Your task to perform on an android device: Go to network settings Image 0: 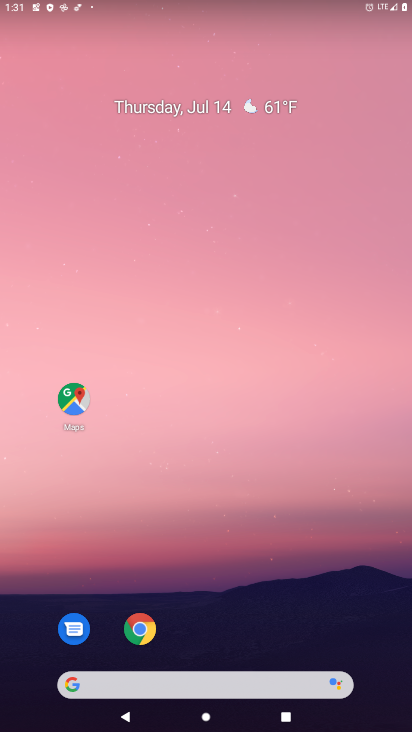
Step 0: drag from (233, 586) to (102, 46)
Your task to perform on an android device: Go to network settings Image 1: 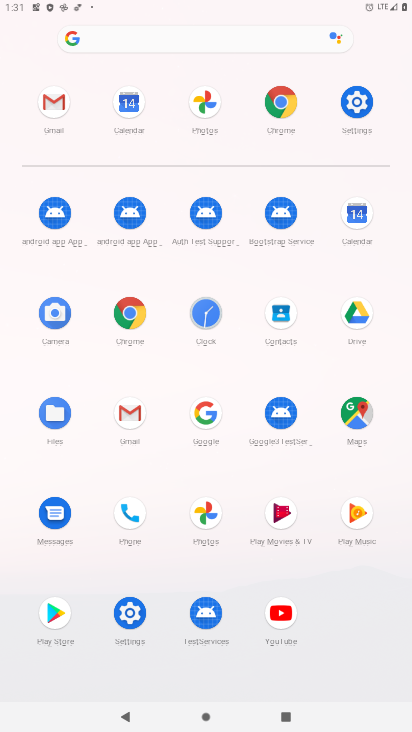
Step 1: click (355, 98)
Your task to perform on an android device: Go to network settings Image 2: 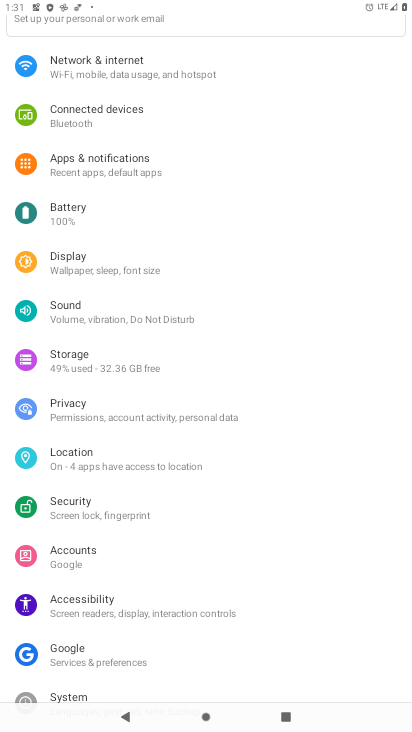
Step 2: click (90, 65)
Your task to perform on an android device: Go to network settings Image 3: 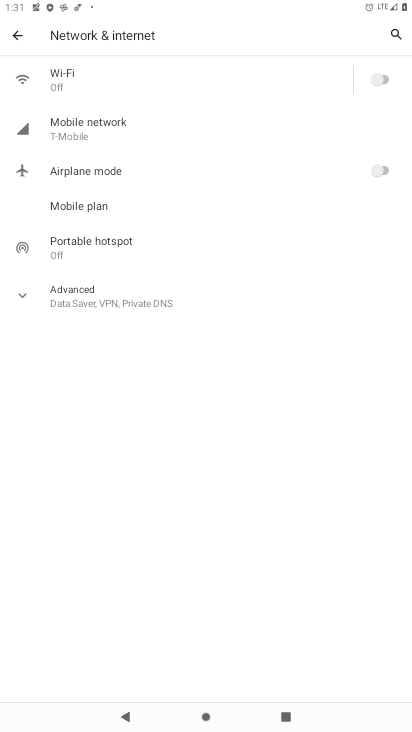
Step 3: task complete